Your task to perform on an android device: set an alarm Image 0: 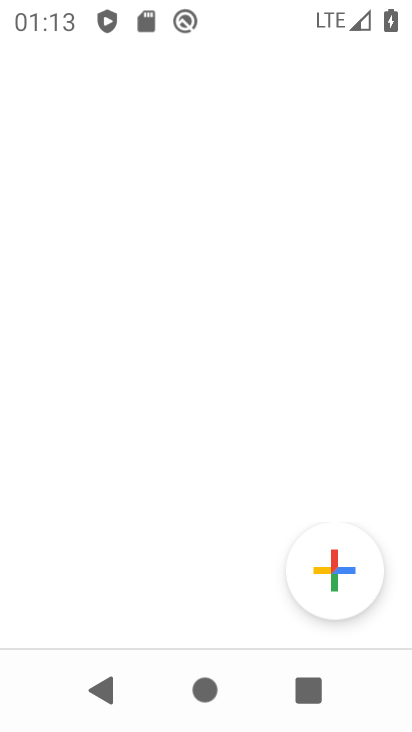
Step 0: click (50, 297)
Your task to perform on an android device: set an alarm Image 1: 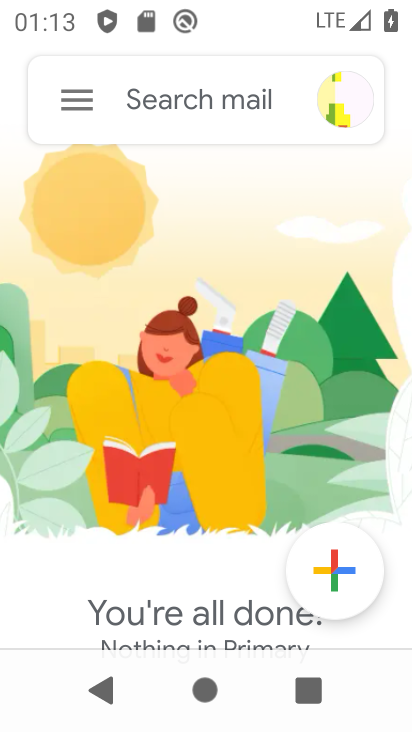
Step 1: press home button
Your task to perform on an android device: set an alarm Image 2: 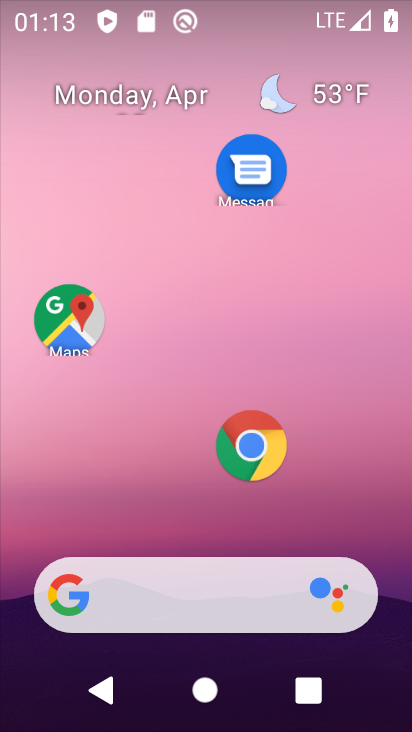
Step 2: drag from (167, 518) to (282, 14)
Your task to perform on an android device: set an alarm Image 3: 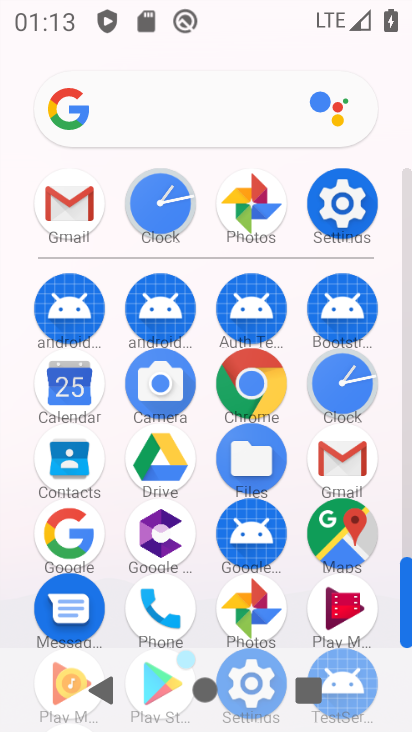
Step 3: click (342, 371)
Your task to perform on an android device: set an alarm Image 4: 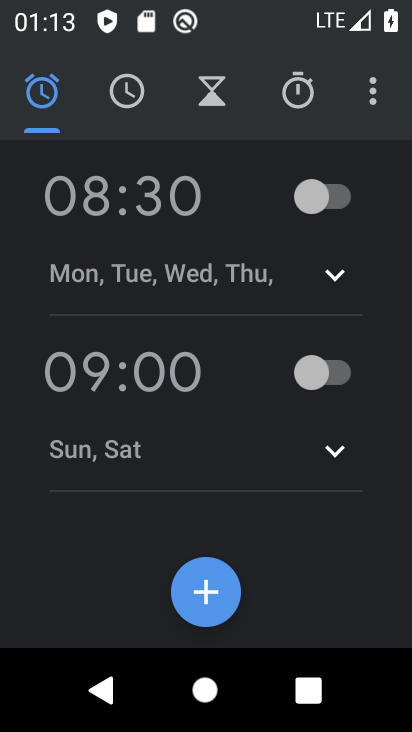
Step 4: click (340, 203)
Your task to perform on an android device: set an alarm Image 5: 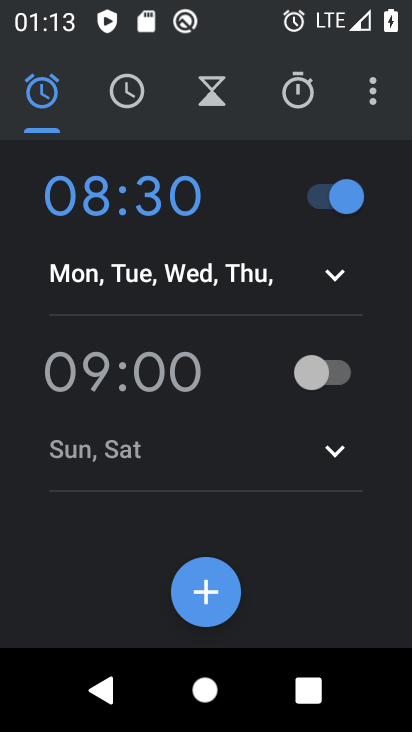
Step 5: task complete